Your task to perform on an android device: turn off sleep mode Image 0: 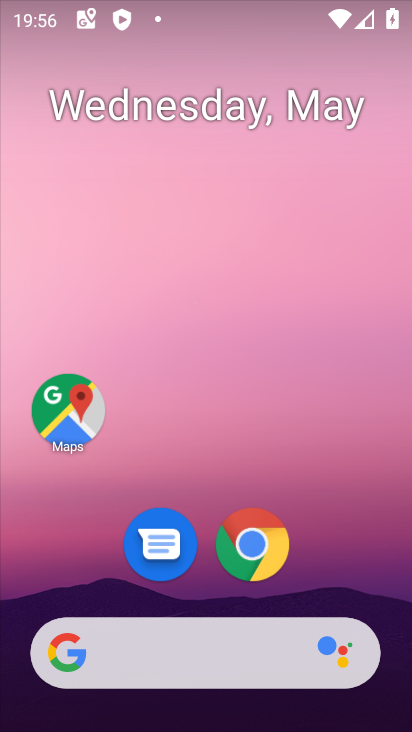
Step 0: drag from (206, 600) to (249, 7)
Your task to perform on an android device: turn off sleep mode Image 1: 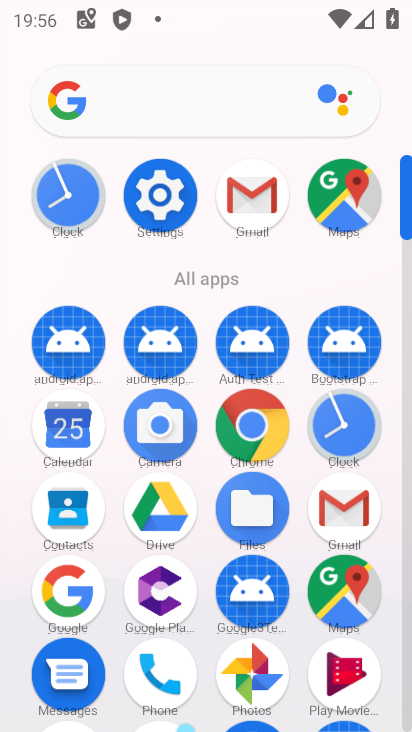
Step 1: click (148, 166)
Your task to perform on an android device: turn off sleep mode Image 2: 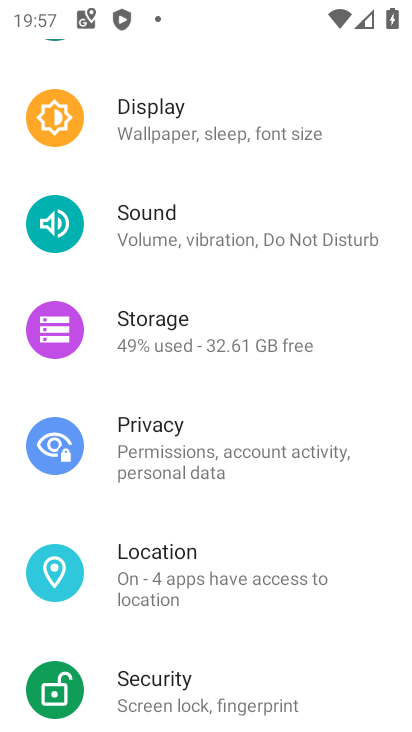
Step 2: task complete